Your task to perform on an android device: change the clock display to digital Image 0: 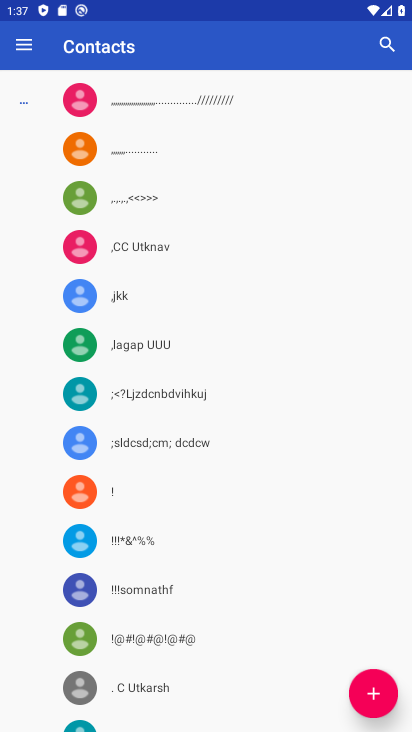
Step 0: press home button
Your task to perform on an android device: change the clock display to digital Image 1: 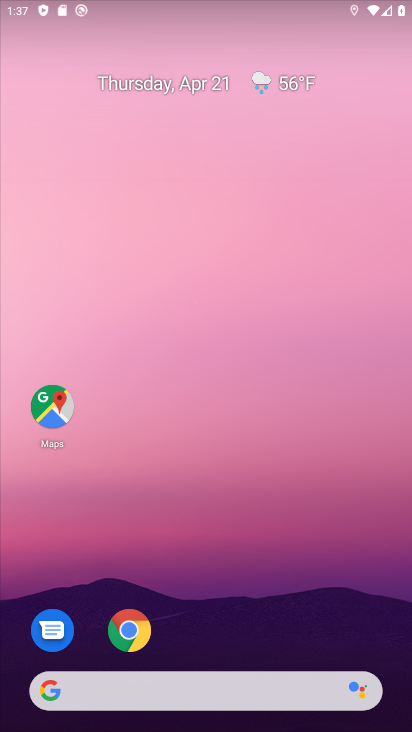
Step 1: drag from (291, 578) to (184, 3)
Your task to perform on an android device: change the clock display to digital Image 2: 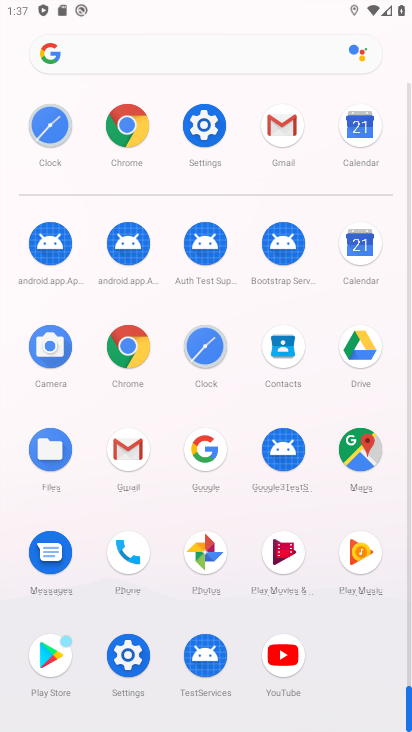
Step 2: click (211, 344)
Your task to perform on an android device: change the clock display to digital Image 3: 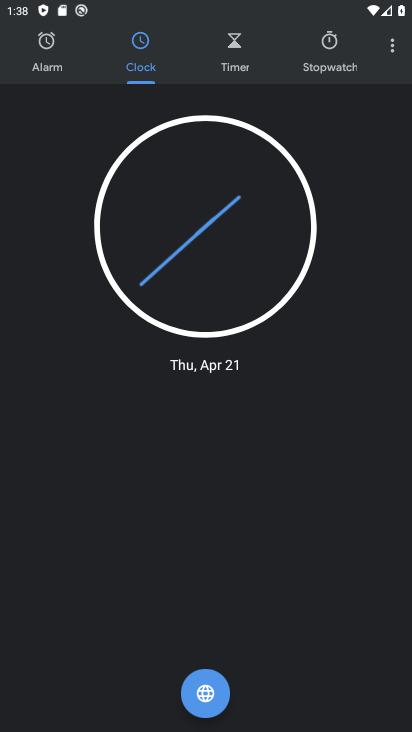
Step 3: click (387, 60)
Your task to perform on an android device: change the clock display to digital Image 4: 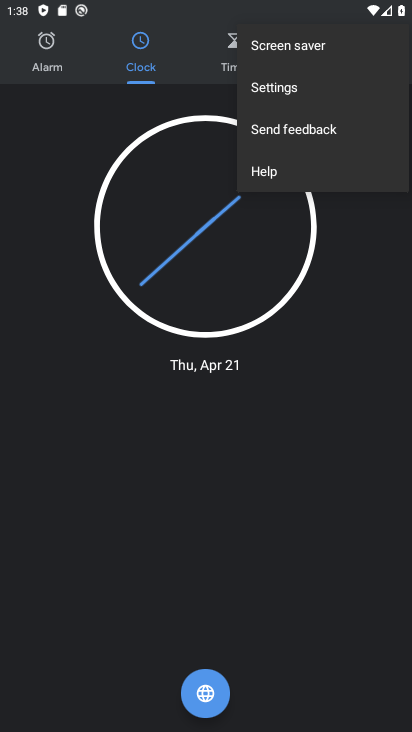
Step 4: click (290, 90)
Your task to perform on an android device: change the clock display to digital Image 5: 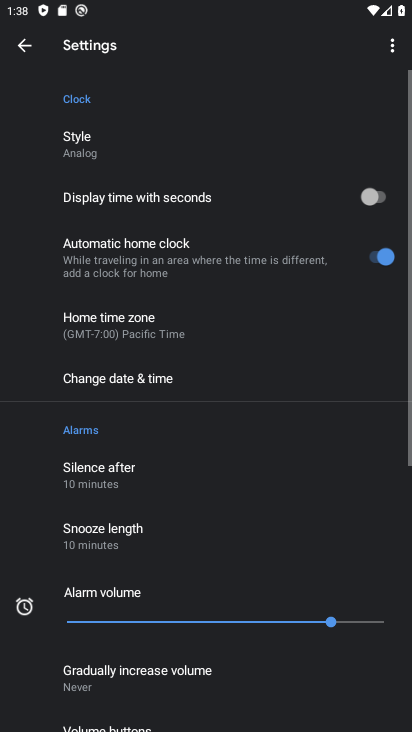
Step 5: click (277, 129)
Your task to perform on an android device: change the clock display to digital Image 6: 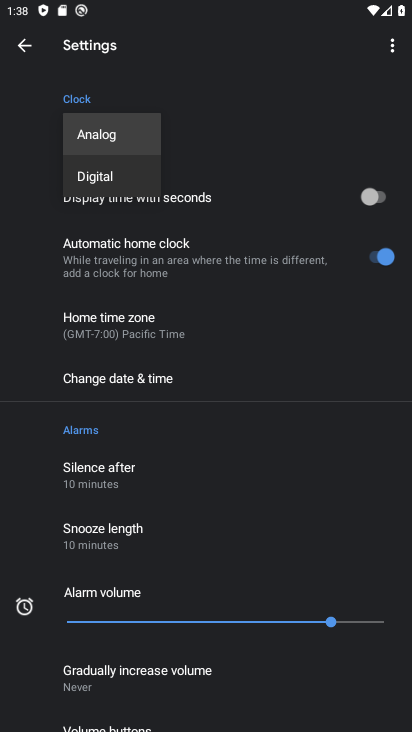
Step 6: click (102, 173)
Your task to perform on an android device: change the clock display to digital Image 7: 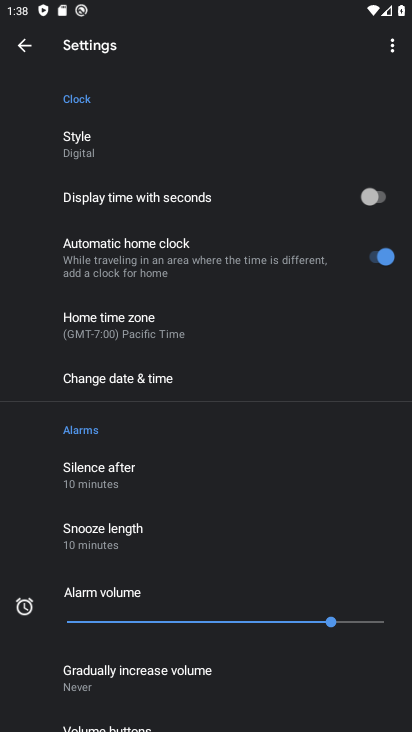
Step 7: task complete